Your task to perform on an android device: toggle show notifications on the lock screen Image 0: 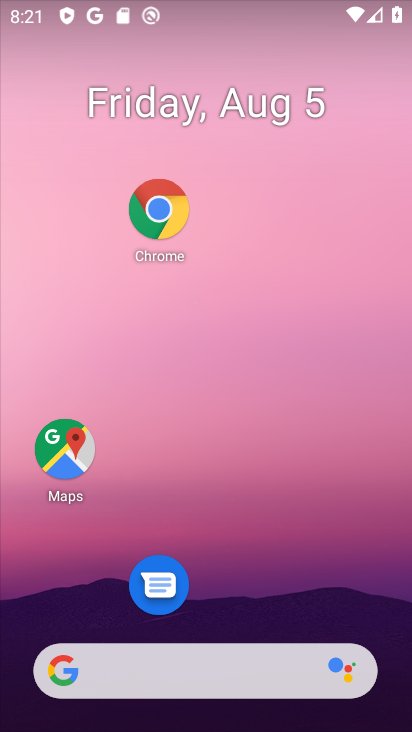
Step 0: drag from (238, 612) to (389, 45)
Your task to perform on an android device: toggle show notifications on the lock screen Image 1: 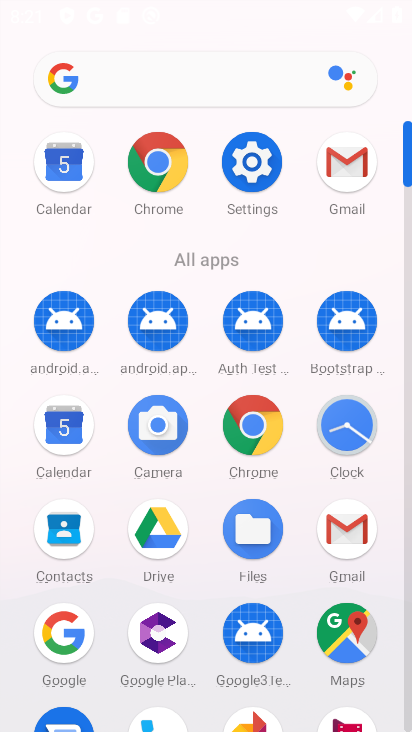
Step 1: click (237, 183)
Your task to perform on an android device: toggle show notifications on the lock screen Image 2: 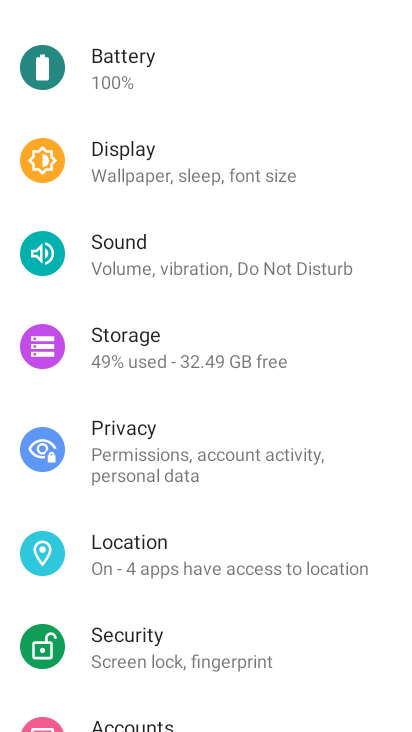
Step 2: drag from (324, 525) to (284, 0)
Your task to perform on an android device: toggle show notifications on the lock screen Image 3: 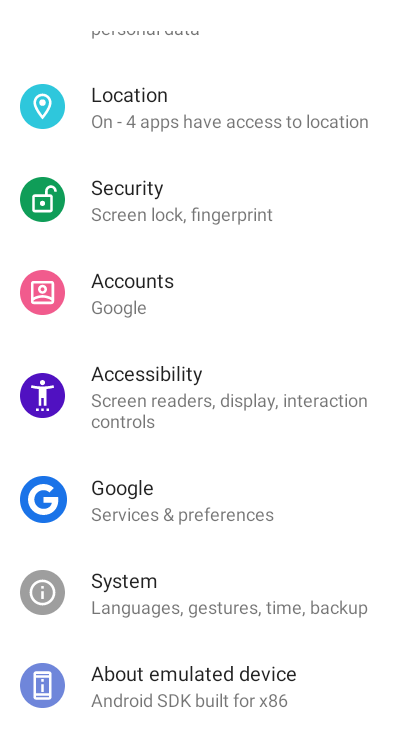
Step 3: drag from (266, 55) to (348, 540)
Your task to perform on an android device: toggle show notifications on the lock screen Image 4: 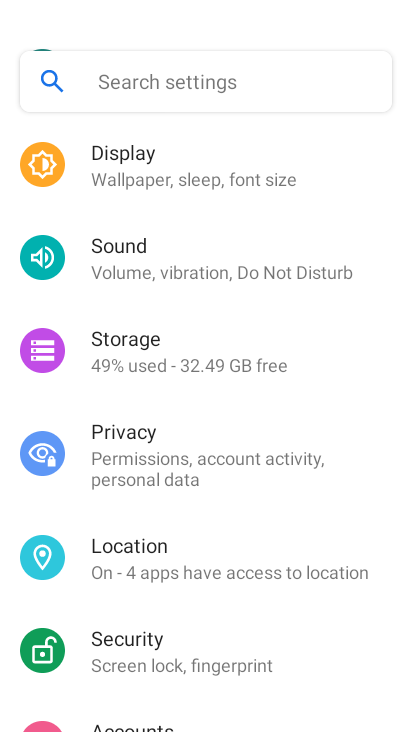
Step 4: drag from (211, 242) to (159, 678)
Your task to perform on an android device: toggle show notifications on the lock screen Image 5: 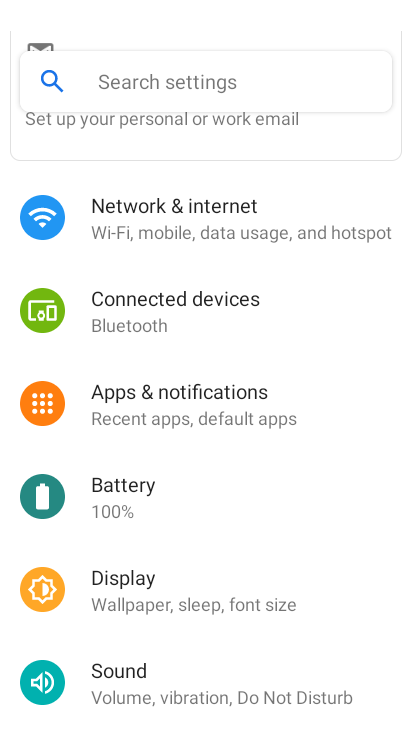
Step 5: click (170, 396)
Your task to perform on an android device: toggle show notifications on the lock screen Image 6: 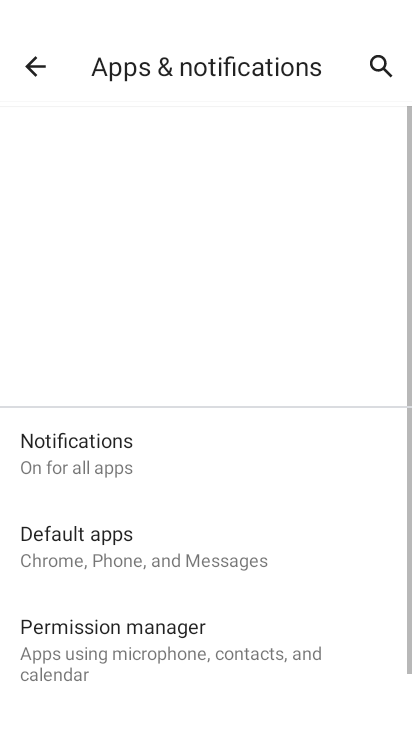
Step 6: click (94, 483)
Your task to perform on an android device: toggle show notifications on the lock screen Image 7: 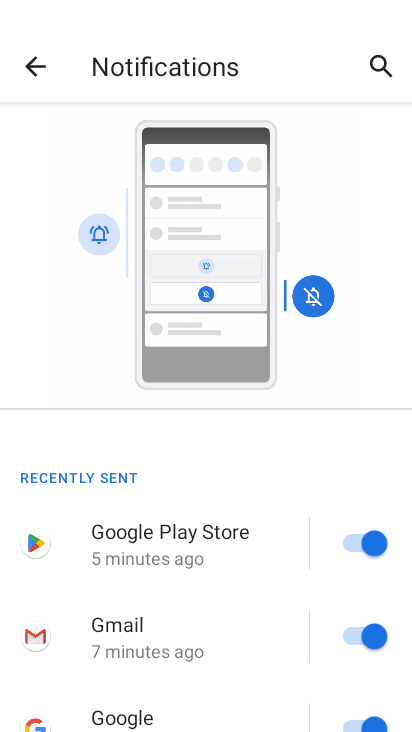
Step 7: drag from (254, 450) to (253, 24)
Your task to perform on an android device: toggle show notifications on the lock screen Image 8: 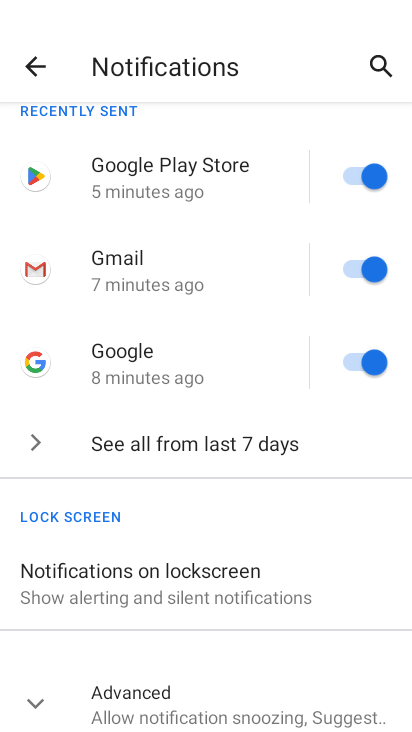
Step 8: click (198, 582)
Your task to perform on an android device: toggle show notifications on the lock screen Image 9: 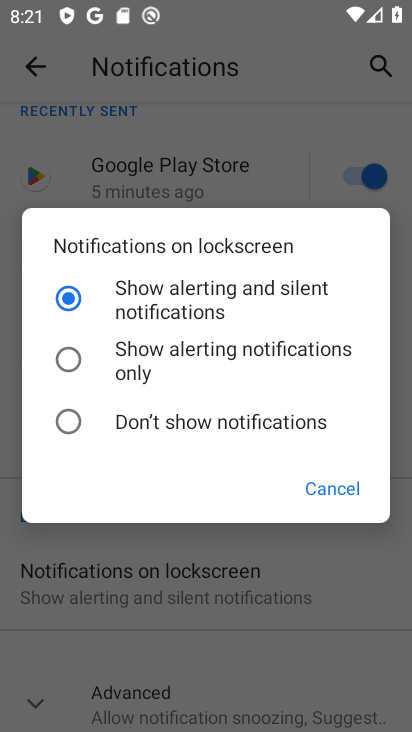
Step 9: click (158, 353)
Your task to perform on an android device: toggle show notifications on the lock screen Image 10: 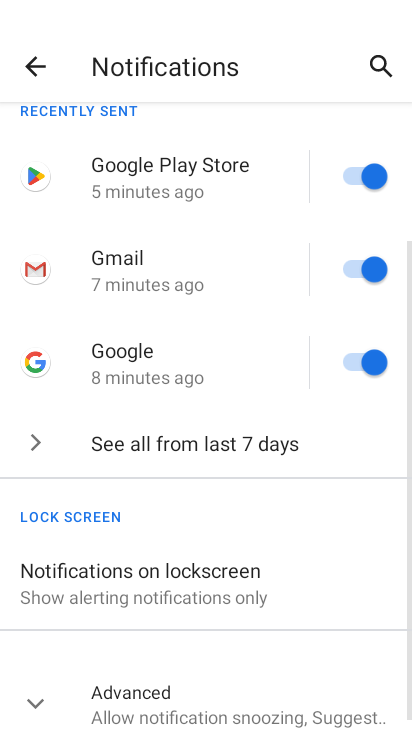
Step 10: task complete